Your task to perform on an android device: Open Chrome and go to settings Image 0: 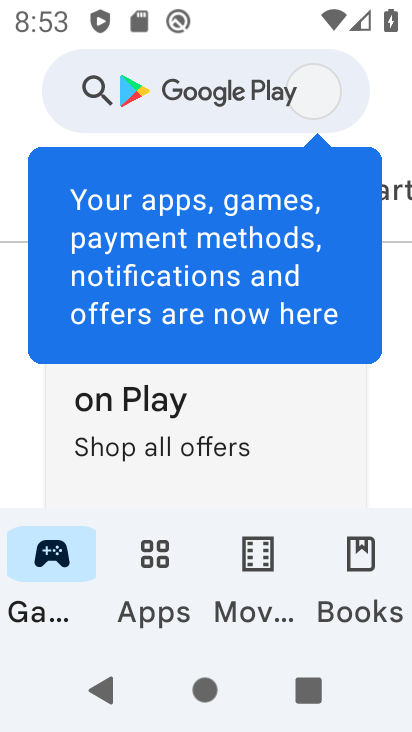
Step 0: press home button
Your task to perform on an android device: Open Chrome and go to settings Image 1: 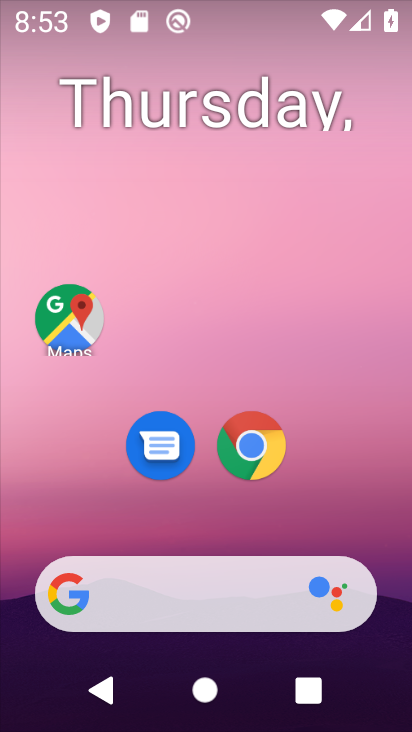
Step 1: click (255, 445)
Your task to perform on an android device: Open Chrome and go to settings Image 2: 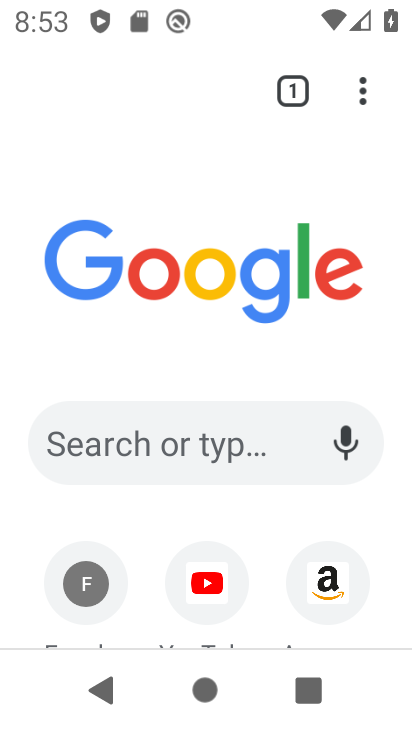
Step 2: click (370, 93)
Your task to perform on an android device: Open Chrome and go to settings Image 3: 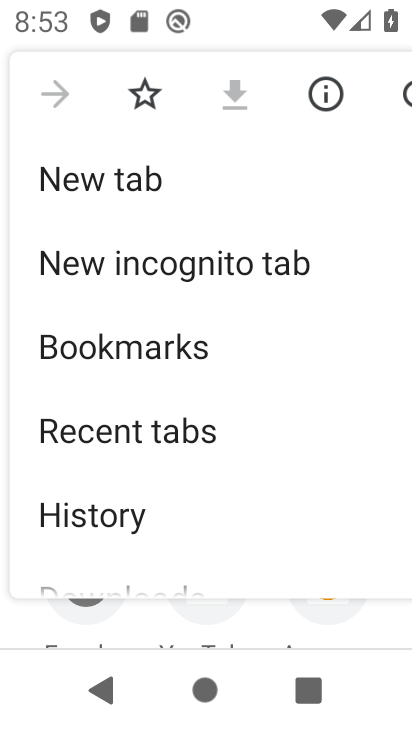
Step 3: drag from (5, 577) to (207, 240)
Your task to perform on an android device: Open Chrome and go to settings Image 4: 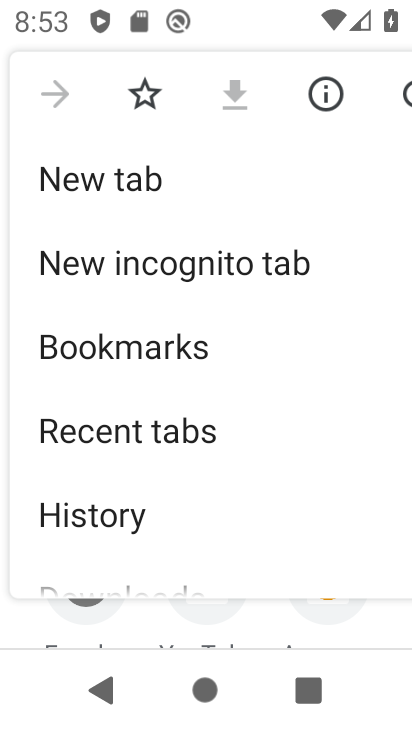
Step 4: drag from (26, 407) to (245, 149)
Your task to perform on an android device: Open Chrome and go to settings Image 5: 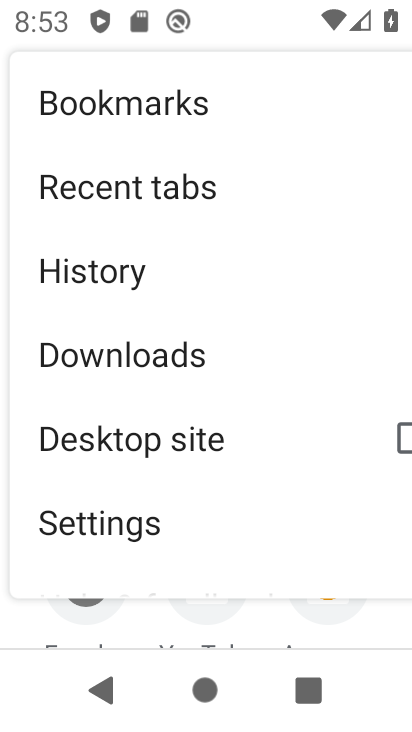
Step 5: click (99, 526)
Your task to perform on an android device: Open Chrome and go to settings Image 6: 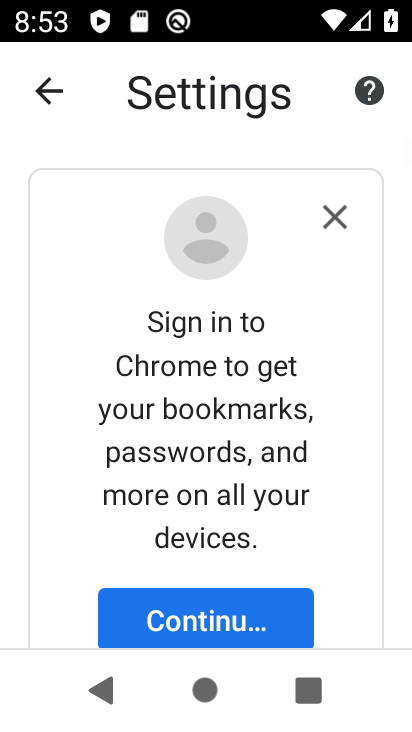
Step 6: click (337, 218)
Your task to perform on an android device: Open Chrome and go to settings Image 7: 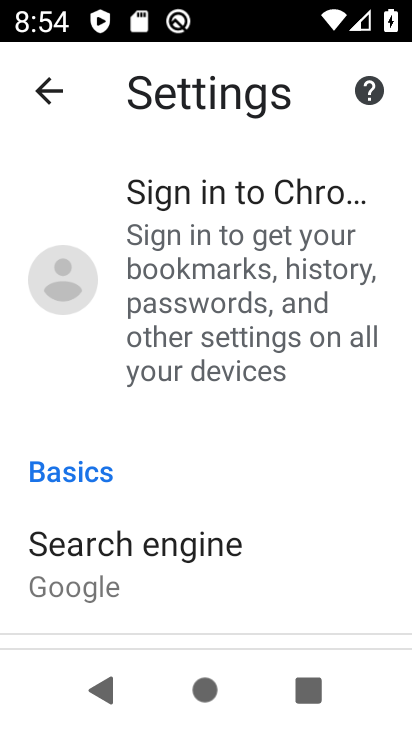
Step 7: task complete